Your task to perform on an android device: set default search engine in the chrome app Image 0: 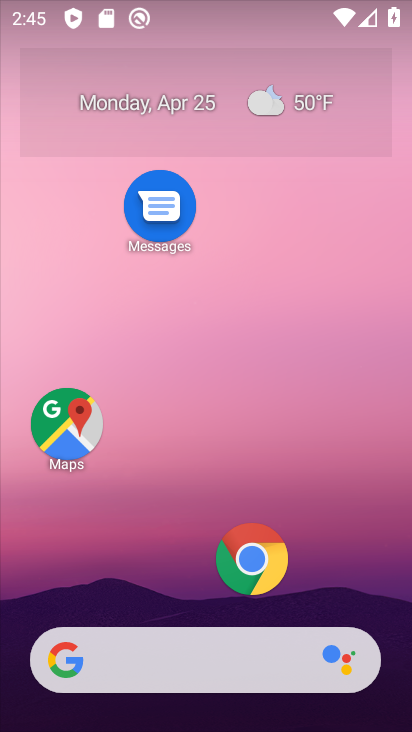
Step 0: click (250, 580)
Your task to perform on an android device: set default search engine in the chrome app Image 1: 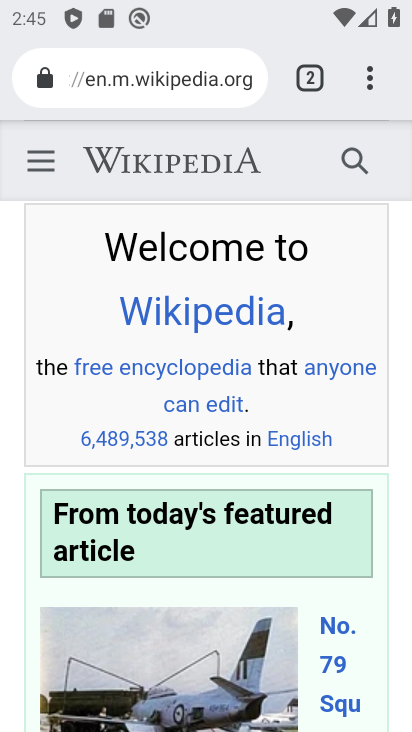
Step 1: click (372, 79)
Your task to perform on an android device: set default search engine in the chrome app Image 2: 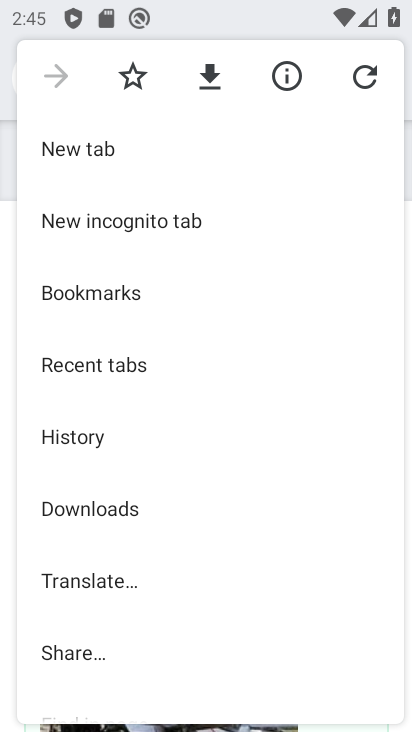
Step 2: drag from (83, 596) to (158, 163)
Your task to perform on an android device: set default search engine in the chrome app Image 3: 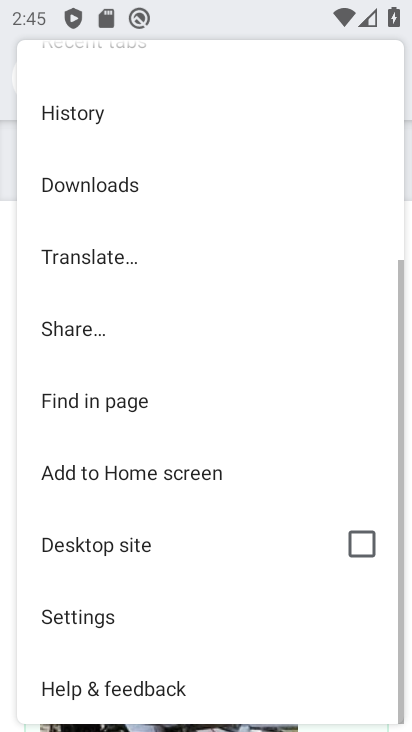
Step 3: click (103, 610)
Your task to perform on an android device: set default search engine in the chrome app Image 4: 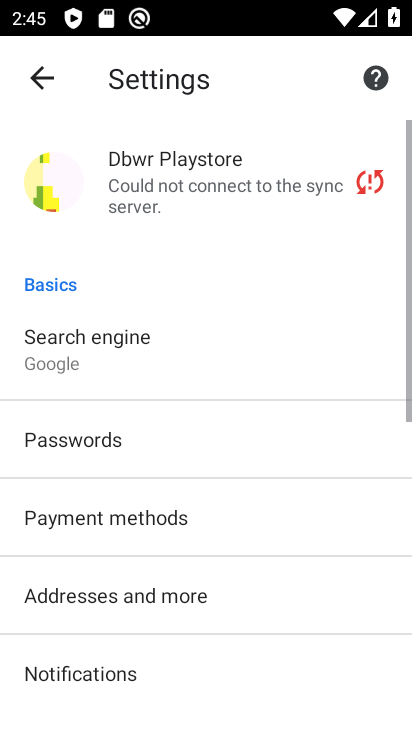
Step 4: click (80, 364)
Your task to perform on an android device: set default search engine in the chrome app Image 5: 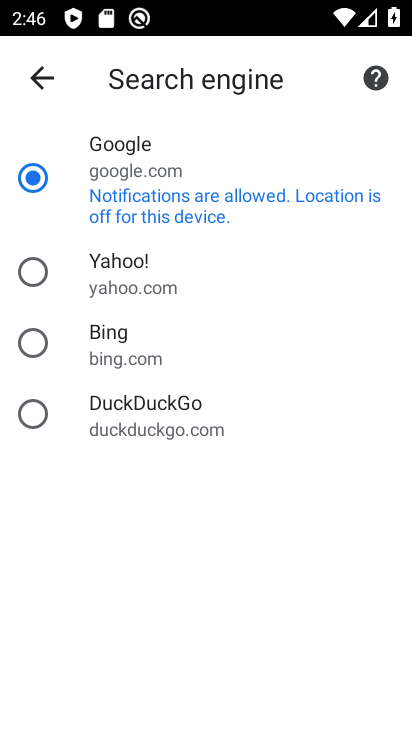
Step 5: task complete